Your task to perform on an android device: turn notification dots off Image 0: 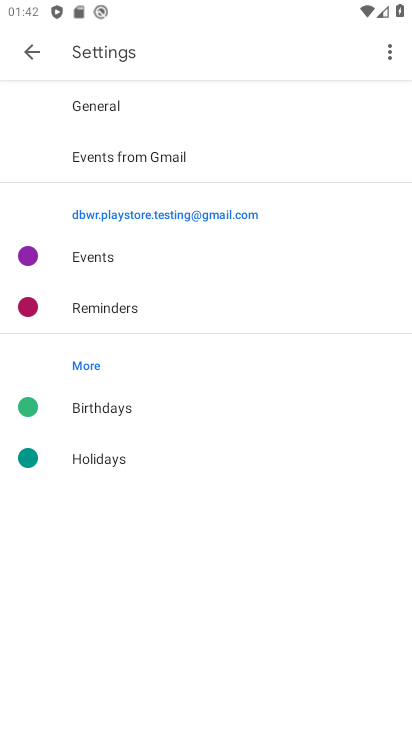
Step 0: press home button
Your task to perform on an android device: turn notification dots off Image 1: 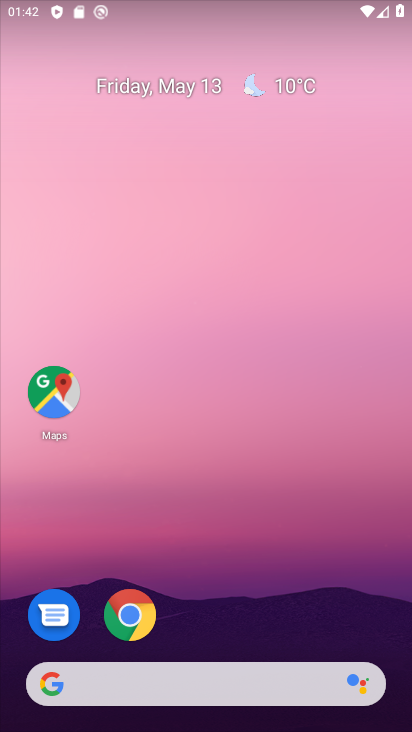
Step 1: drag from (206, 624) to (145, 148)
Your task to perform on an android device: turn notification dots off Image 2: 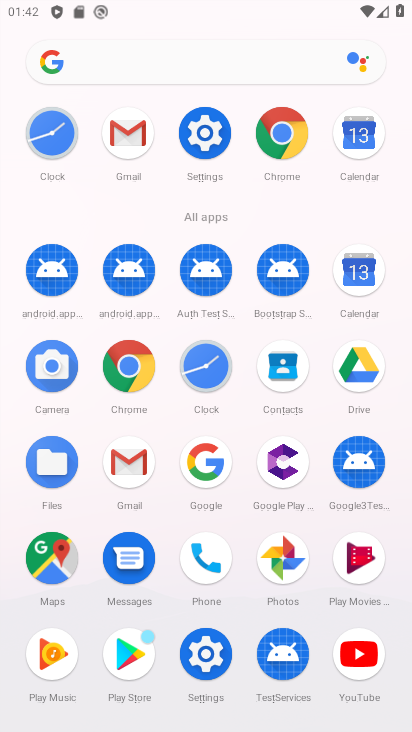
Step 2: click (218, 652)
Your task to perform on an android device: turn notification dots off Image 3: 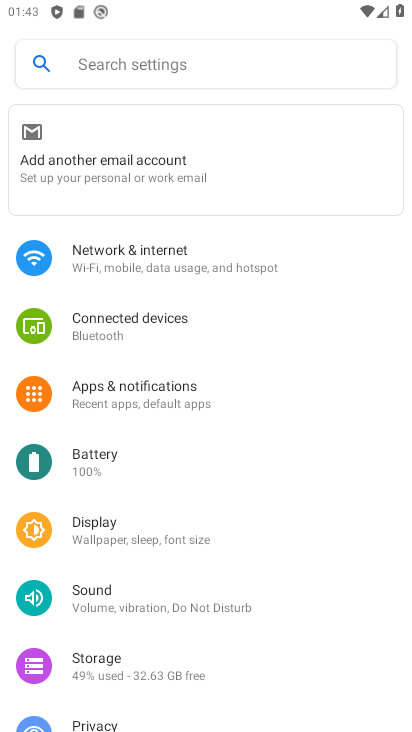
Step 3: click (126, 398)
Your task to perform on an android device: turn notification dots off Image 4: 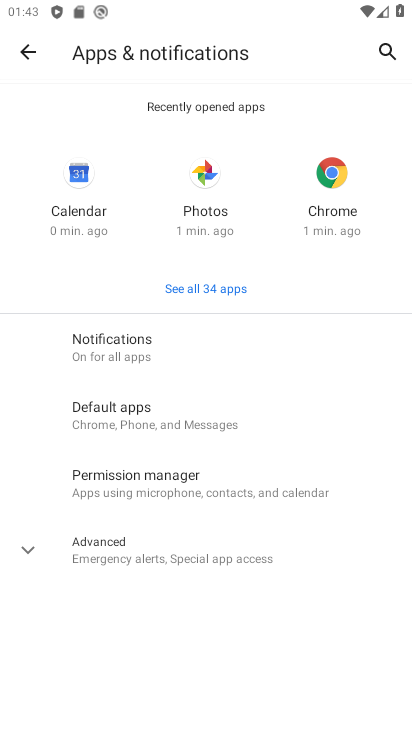
Step 4: click (128, 348)
Your task to perform on an android device: turn notification dots off Image 5: 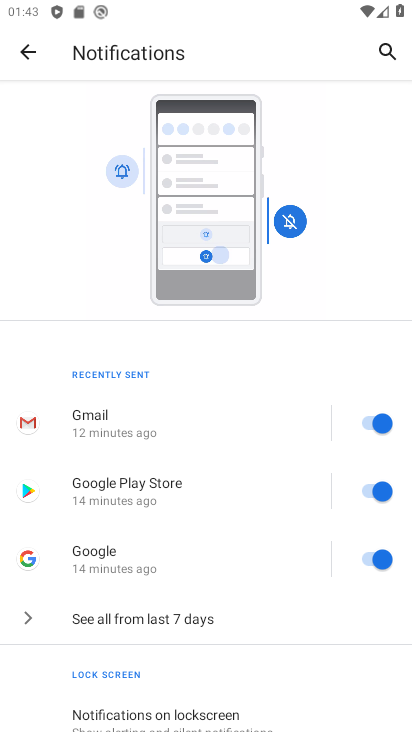
Step 5: drag from (159, 718) to (180, 360)
Your task to perform on an android device: turn notification dots off Image 6: 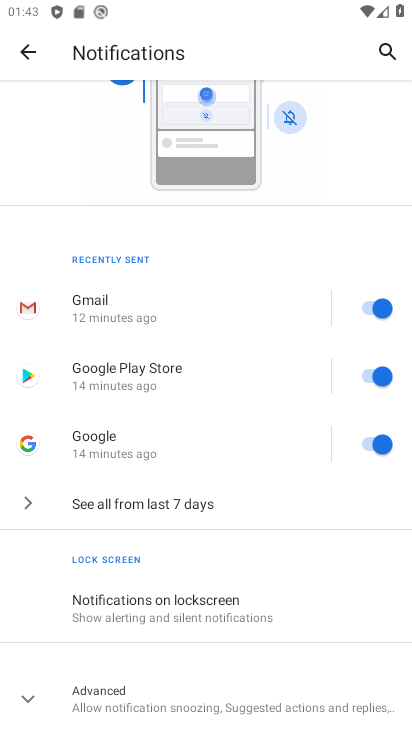
Step 6: click (101, 690)
Your task to perform on an android device: turn notification dots off Image 7: 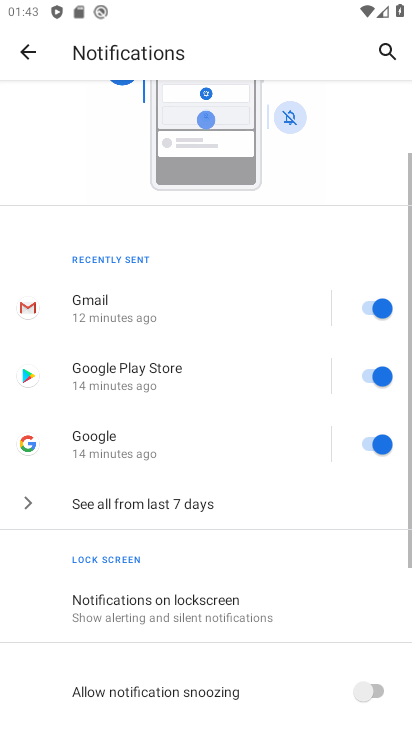
Step 7: drag from (97, 674) to (93, 345)
Your task to perform on an android device: turn notification dots off Image 8: 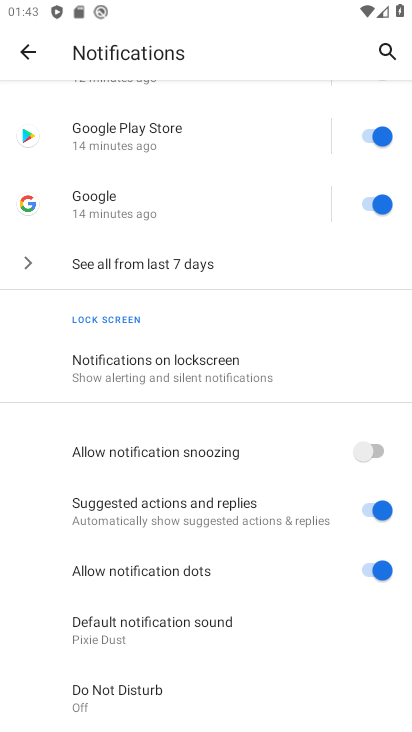
Step 8: click (377, 564)
Your task to perform on an android device: turn notification dots off Image 9: 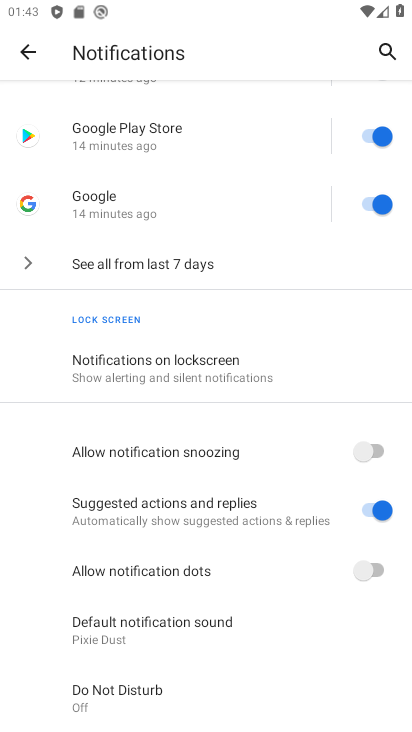
Step 9: task complete